Your task to perform on an android device: set default search engine in the chrome app Image 0: 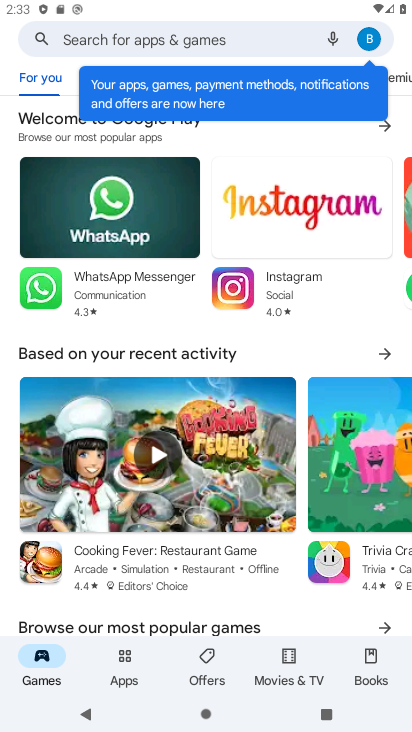
Step 0: press home button
Your task to perform on an android device: set default search engine in the chrome app Image 1: 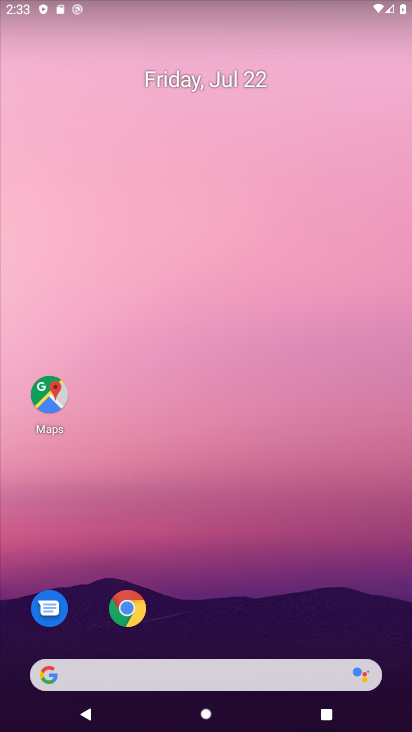
Step 1: click (148, 609)
Your task to perform on an android device: set default search engine in the chrome app Image 2: 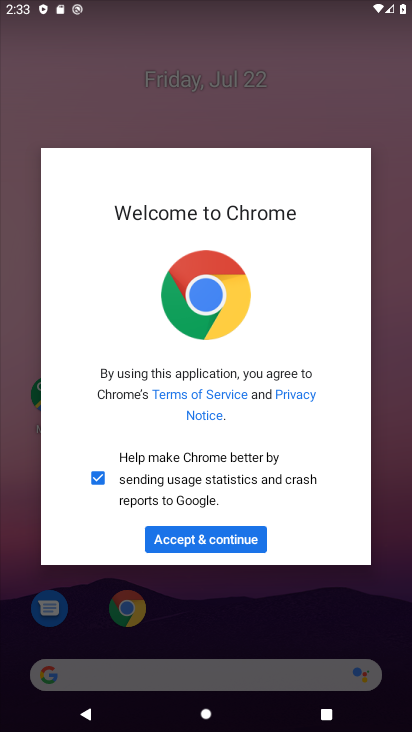
Step 2: click (208, 530)
Your task to perform on an android device: set default search engine in the chrome app Image 3: 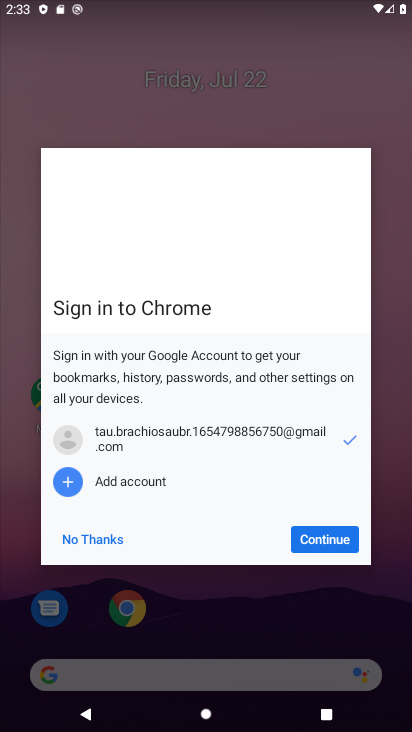
Step 3: click (305, 546)
Your task to perform on an android device: set default search engine in the chrome app Image 4: 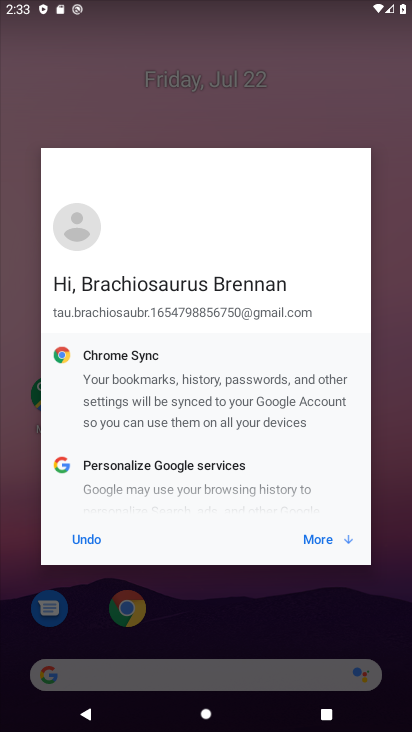
Step 4: click (305, 546)
Your task to perform on an android device: set default search engine in the chrome app Image 5: 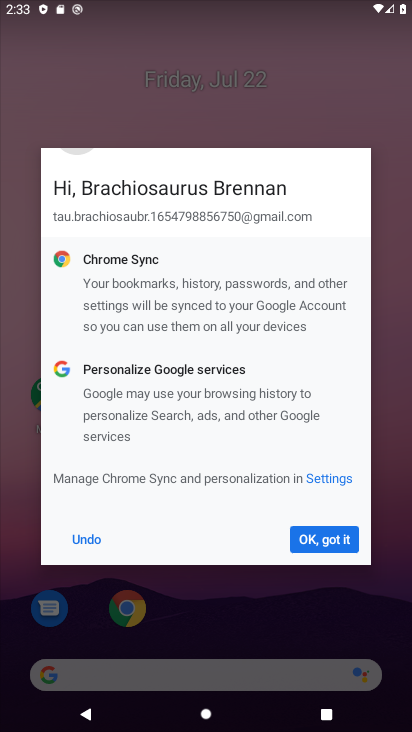
Step 5: click (305, 546)
Your task to perform on an android device: set default search engine in the chrome app Image 6: 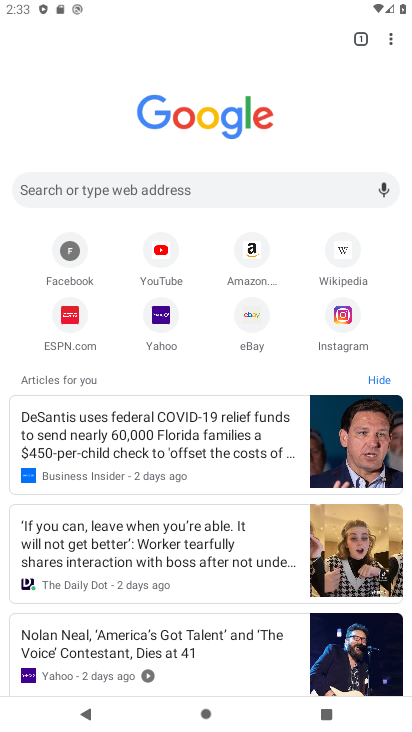
Step 6: click (398, 41)
Your task to perform on an android device: set default search engine in the chrome app Image 7: 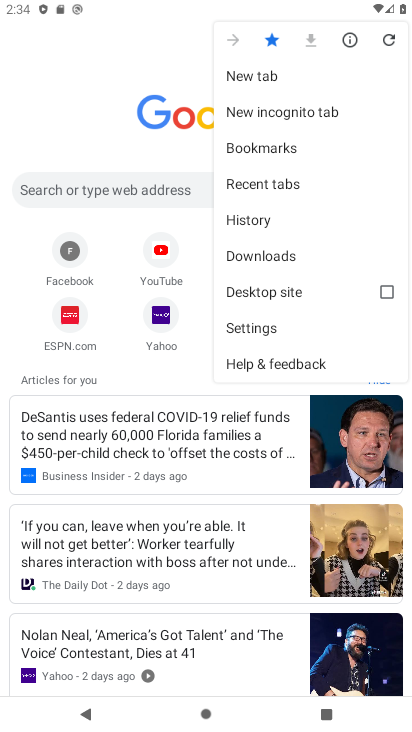
Step 7: click (264, 325)
Your task to perform on an android device: set default search engine in the chrome app Image 8: 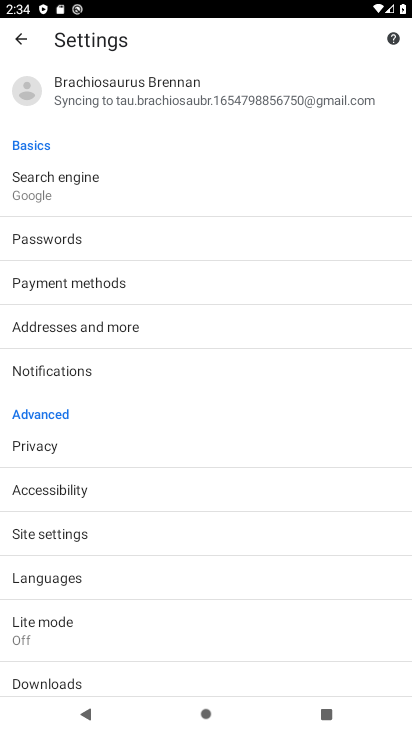
Step 8: click (62, 179)
Your task to perform on an android device: set default search engine in the chrome app Image 9: 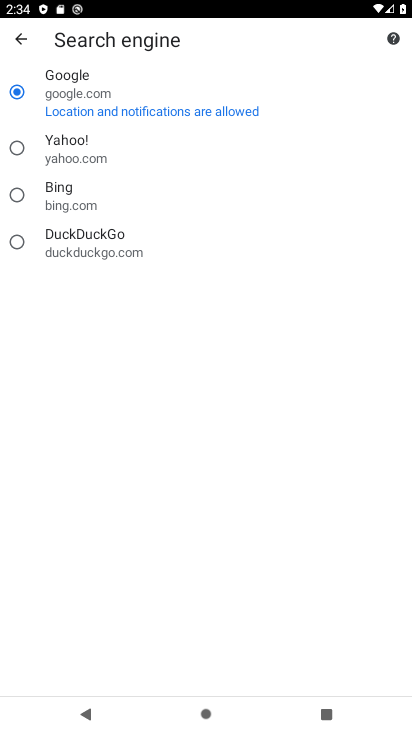
Step 9: click (56, 237)
Your task to perform on an android device: set default search engine in the chrome app Image 10: 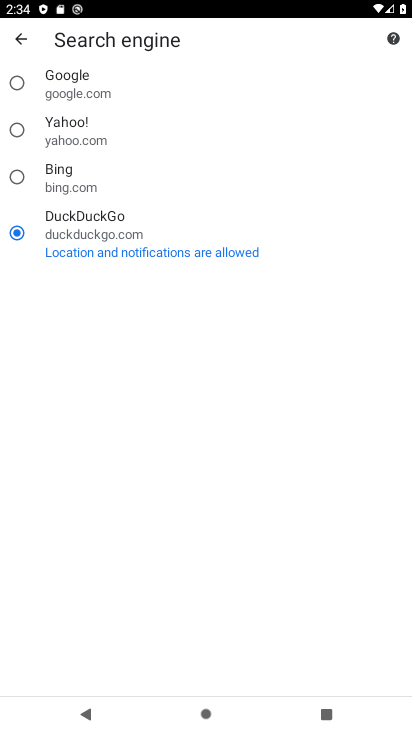
Step 10: task complete